Your task to perform on an android device: Go to Yahoo.com Image 0: 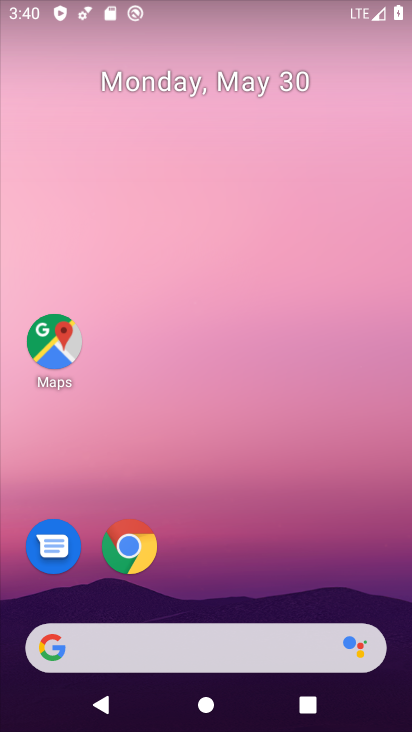
Step 0: click (121, 552)
Your task to perform on an android device: Go to Yahoo.com Image 1: 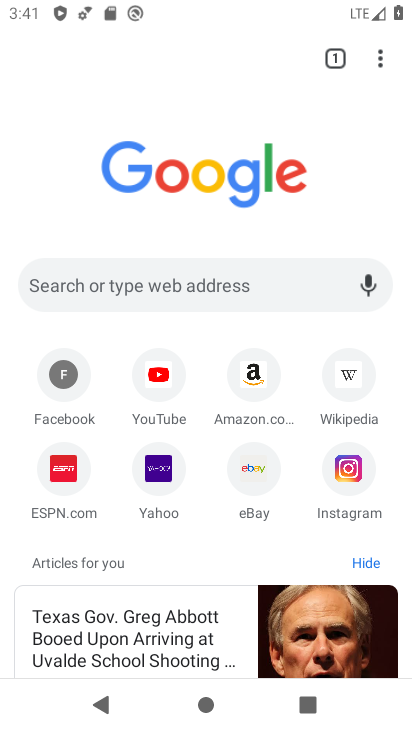
Step 1: click (148, 480)
Your task to perform on an android device: Go to Yahoo.com Image 2: 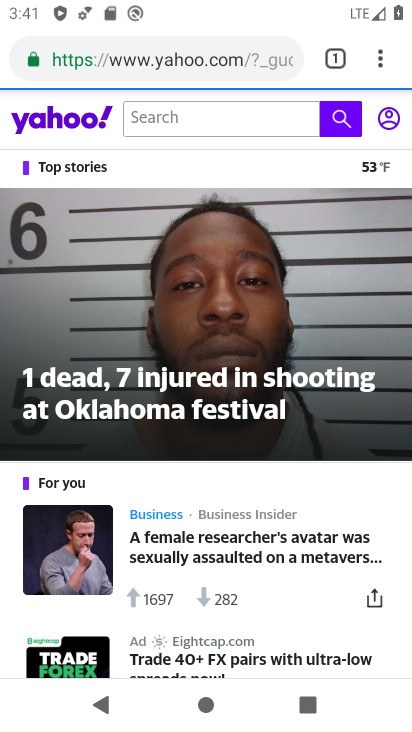
Step 2: task complete